Your task to perform on an android device: See recent photos Image 0: 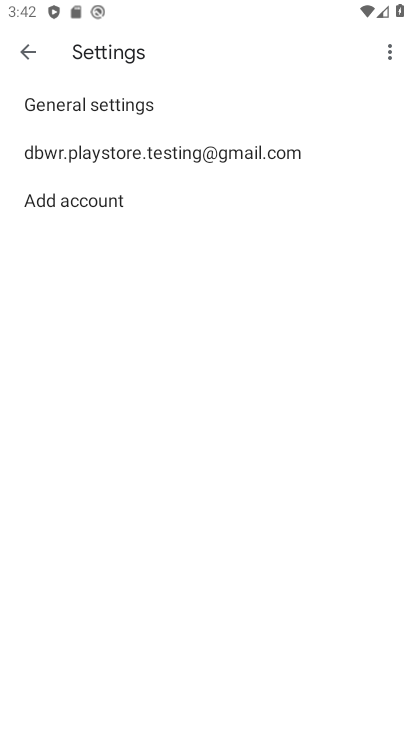
Step 0: press home button
Your task to perform on an android device: See recent photos Image 1: 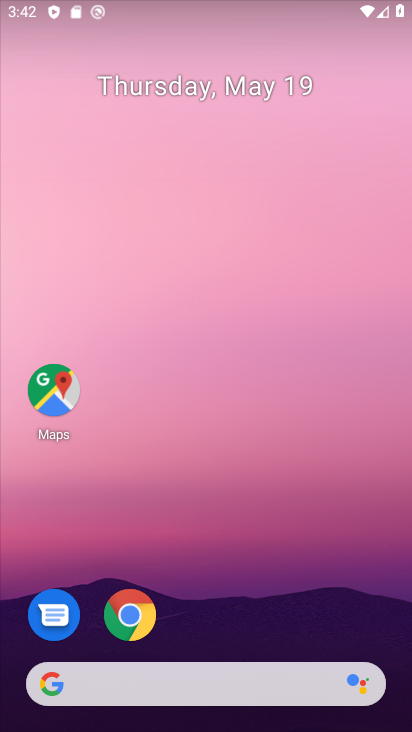
Step 1: drag from (294, 625) to (271, 10)
Your task to perform on an android device: See recent photos Image 2: 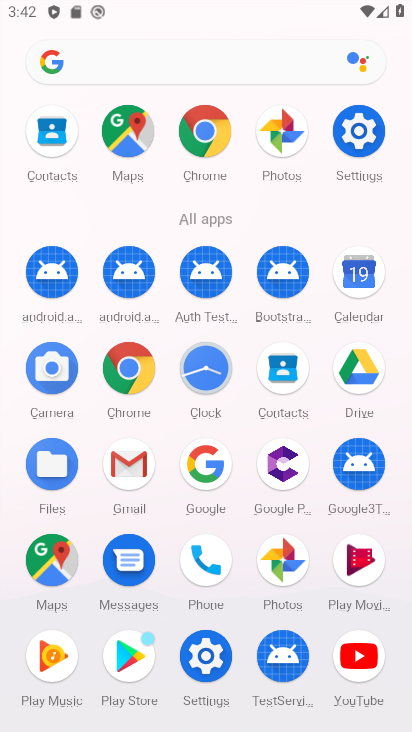
Step 2: click (288, 130)
Your task to perform on an android device: See recent photos Image 3: 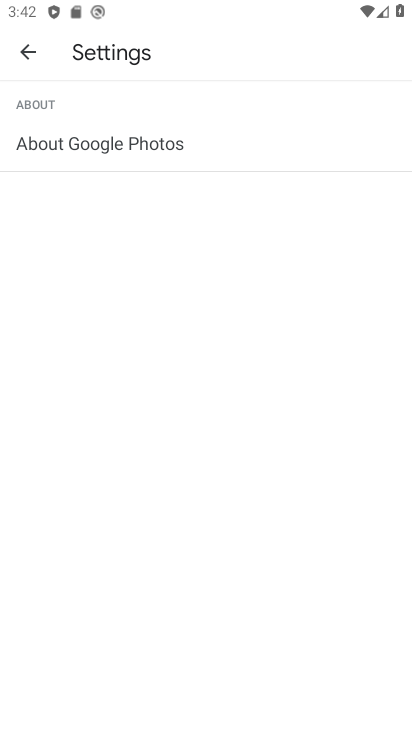
Step 3: click (21, 48)
Your task to perform on an android device: See recent photos Image 4: 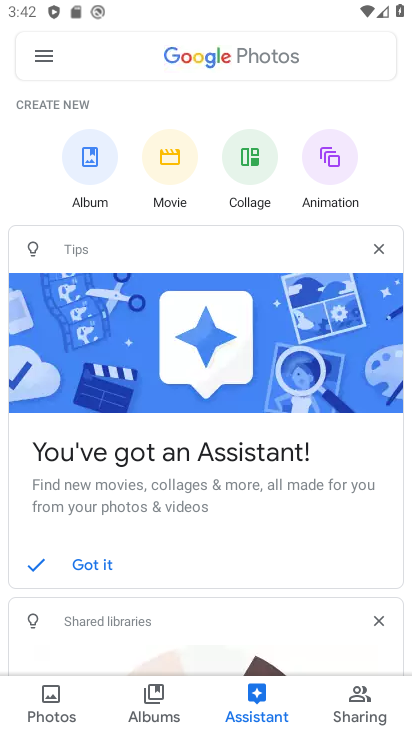
Step 4: task complete